Your task to perform on an android device: see creations saved in the google photos Image 0: 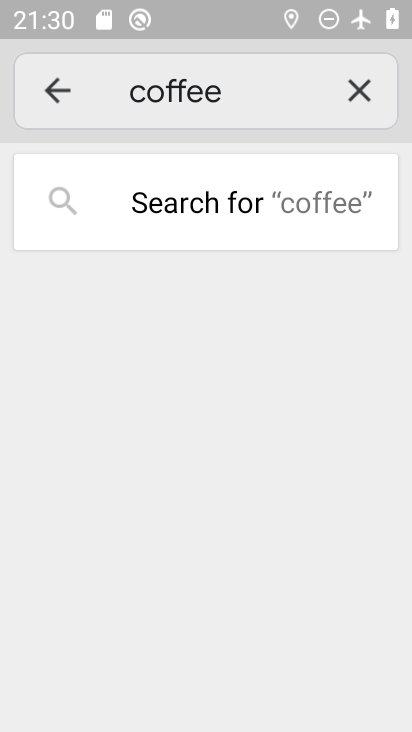
Step 0: press home button
Your task to perform on an android device: see creations saved in the google photos Image 1: 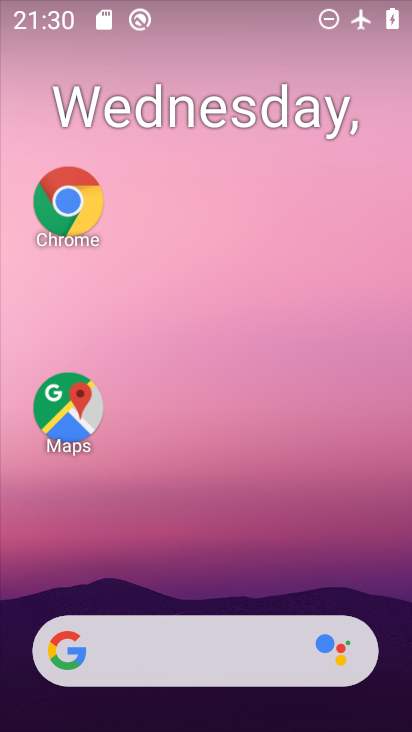
Step 1: drag from (210, 596) to (222, 117)
Your task to perform on an android device: see creations saved in the google photos Image 2: 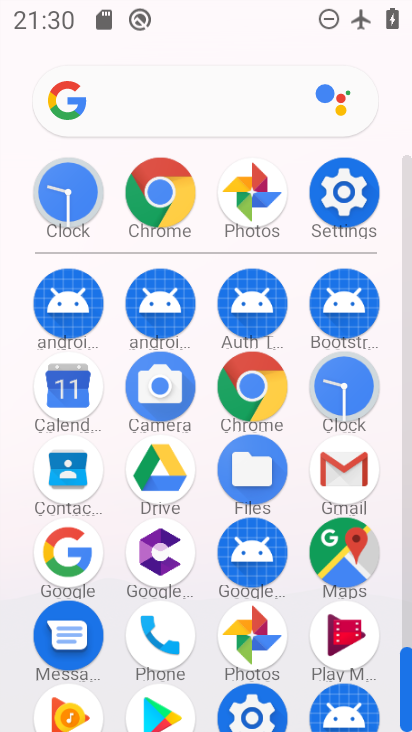
Step 2: click (264, 628)
Your task to perform on an android device: see creations saved in the google photos Image 3: 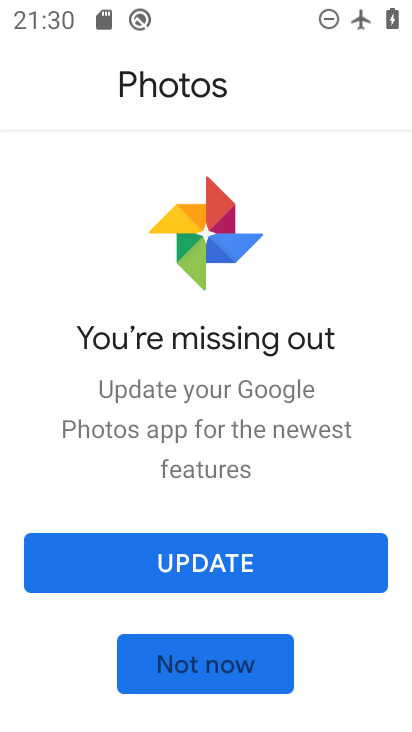
Step 3: click (199, 644)
Your task to perform on an android device: see creations saved in the google photos Image 4: 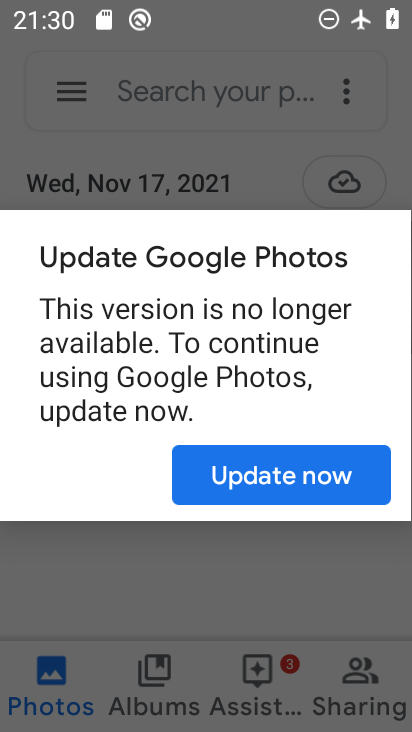
Step 4: click (224, 483)
Your task to perform on an android device: see creations saved in the google photos Image 5: 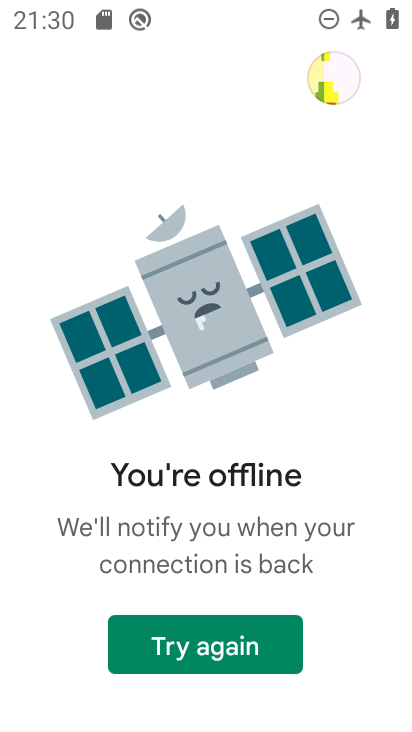
Step 5: click (214, 631)
Your task to perform on an android device: see creations saved in the google photos Image 6: 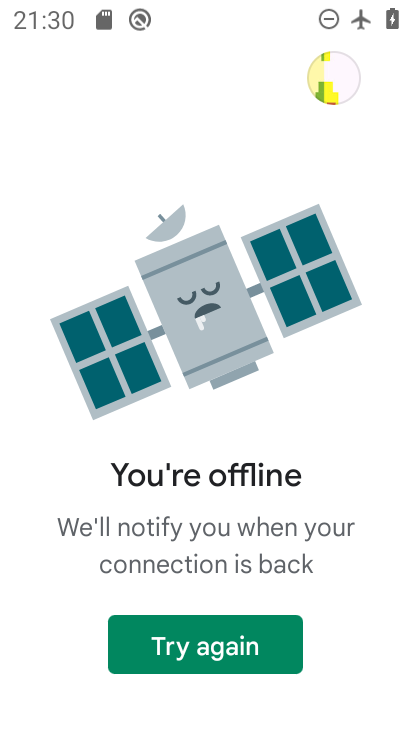
Step 6: press back button
Your task to perform on an android device: see creations saved in the google photos Image 7: 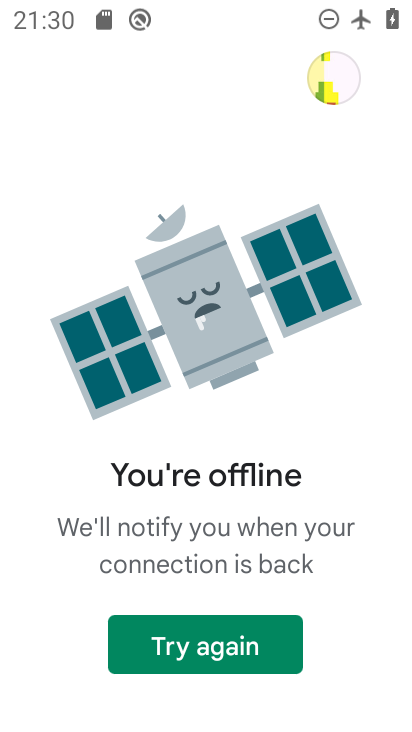
Step 7: press back button
Your task to perform on an android device: see creations saved in the google photos Image 8: 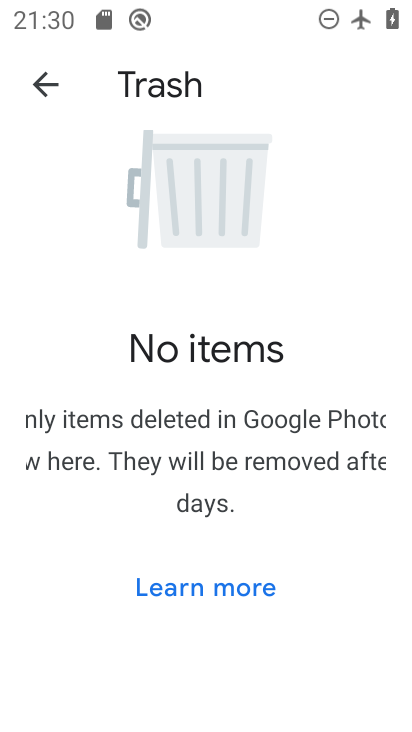
Step 8: click (51, 96)
Your task to perform on an android device: see creations saved in the google photos Image 9: 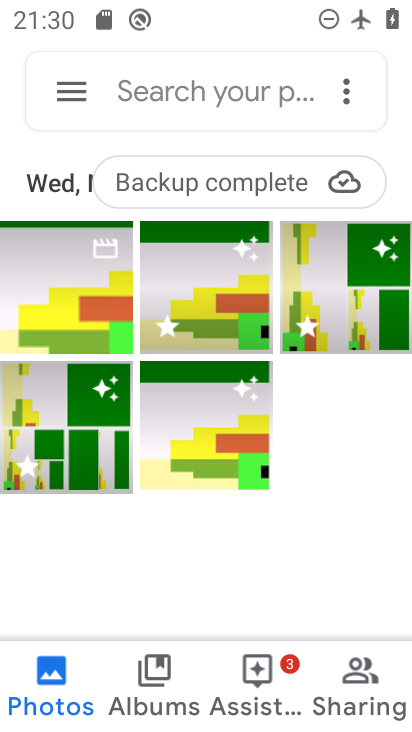
Step 9: click (163, 90)
Your task to perform on an android device: see creations saved in the google photos Image 10: 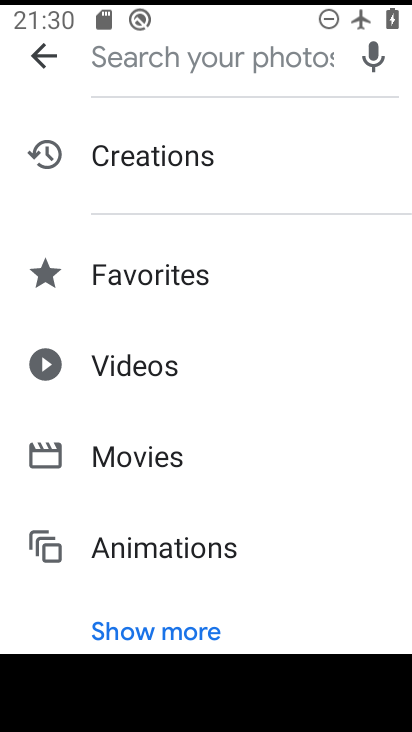
Step 10: click (96, 145)
Your task to perform on an android device: see creations saved in the google photos Image 11: 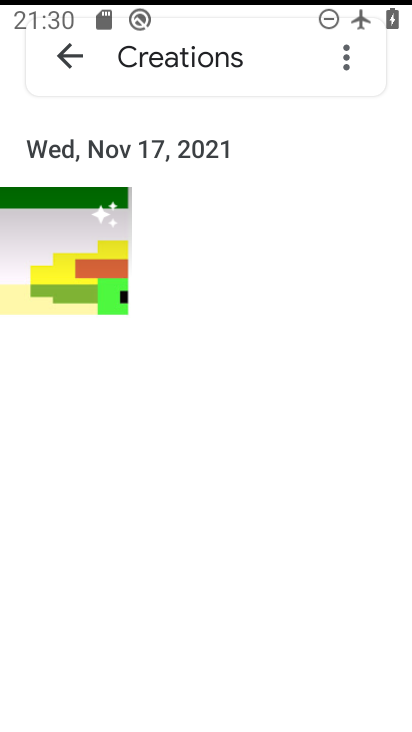
Step 11: task complete